Your task to perform on an android device: What's on my calendar tomorrow? Image 0: 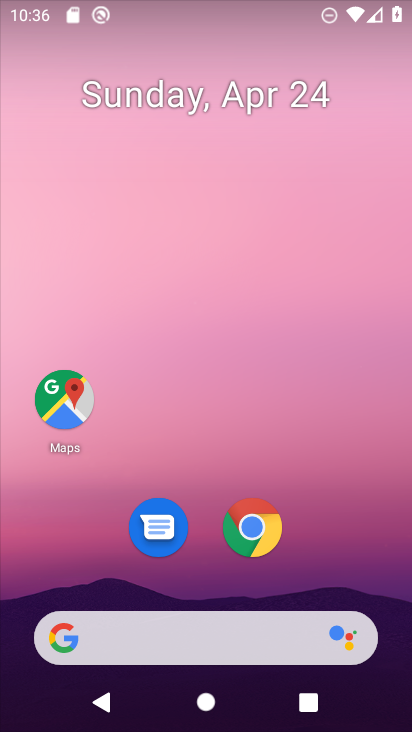
Step 0: click (394, 564)
Your task to perform on an android device: What's on my calendar tomorrow? Image 1: 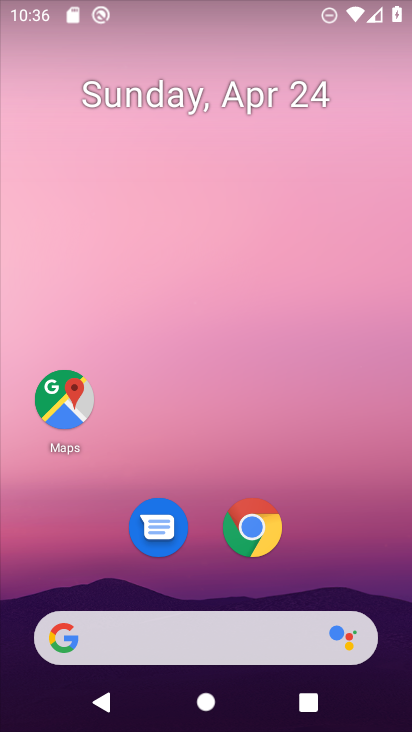
Step 1: drag from (400, 605) to (350, 113)
Your task to perform on an android device: What's on my calendar tomorrow? Image 2: 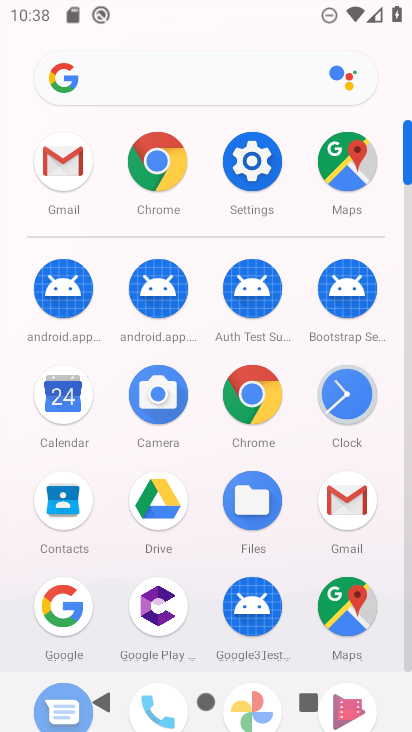
Step 2: click (61, 386)
Your task to perform on an android device: What's on my calendar tomorrow? Image 3: 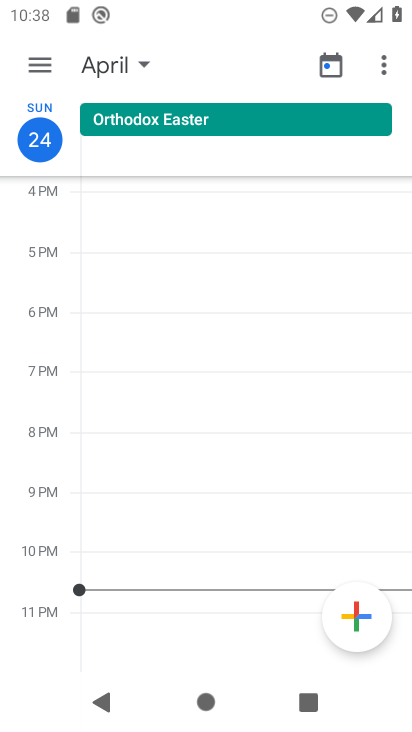
Step 3: click (83, 66)
Your task to perform on an android device: What's on my calendar tomorrow? Image 4: 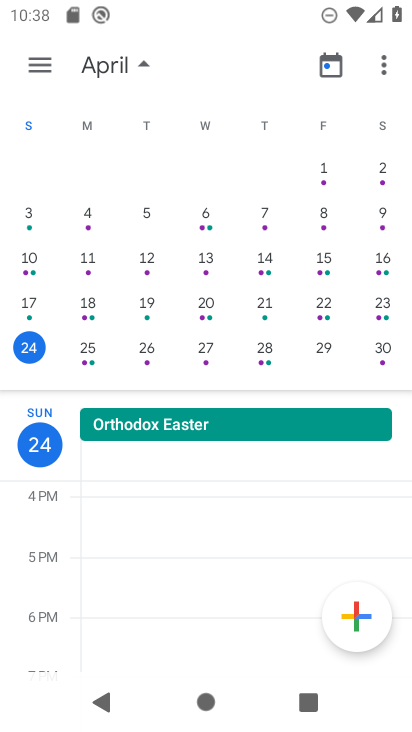
Step 4: click (42, 65)
Your task to perform on an android device: What's on my calendar tomorrow? Image 5: 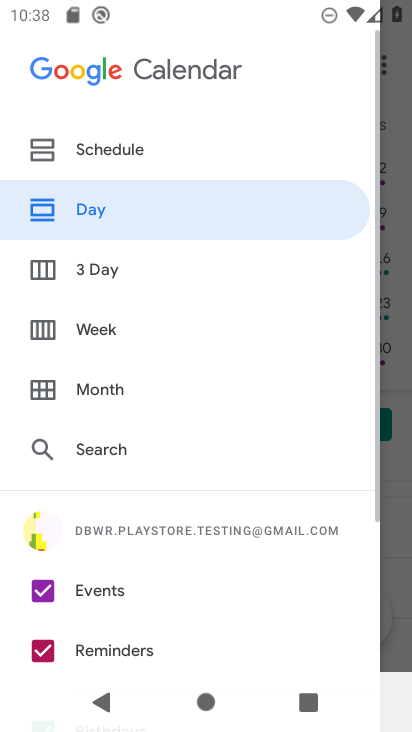
Step 5: click (100, 150)
Your task to perform on an android device: What's on my calendar tomorrow? Image 6: 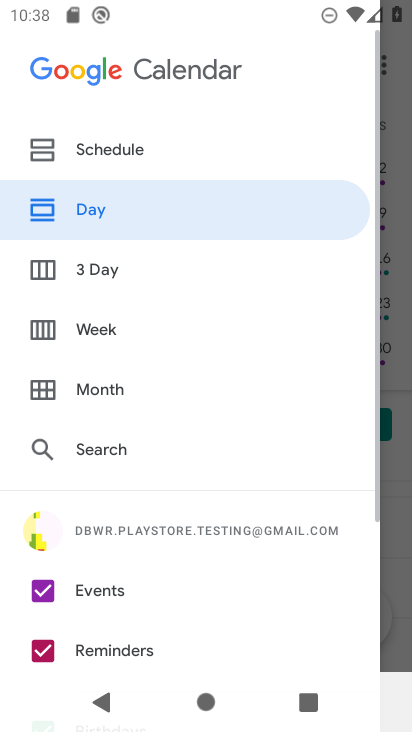
Step 6: click (129, 155)
Your task to perform on an android device: What's on my calendar tomorrow? Image 7: 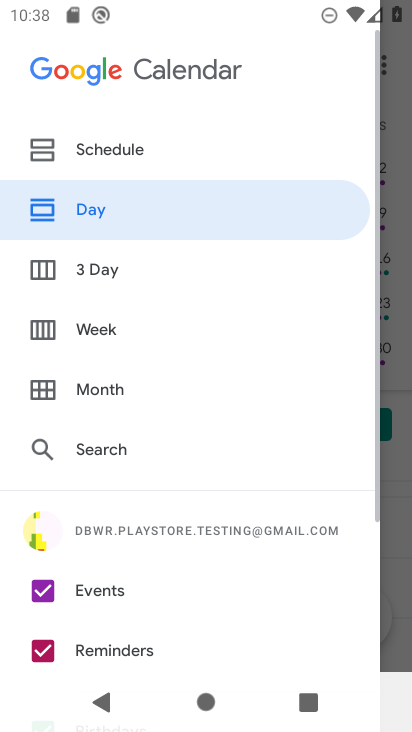
Step 7: click (129, 155)
Your task to perform on an android device: What's on my calendar tomorrow? Image 8: 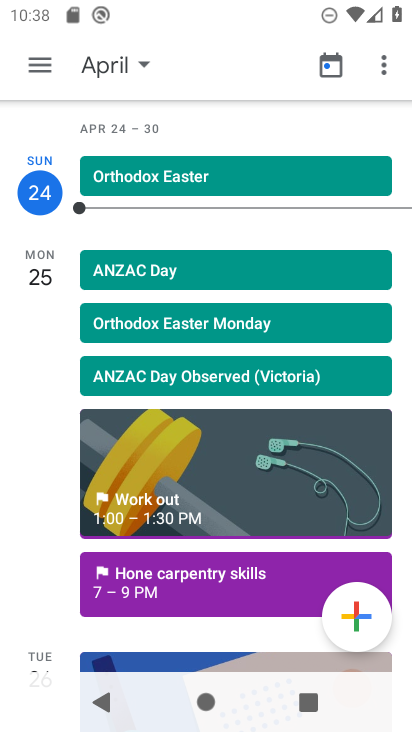
Step 8: drag from (39, 612) to (115, 312)
Your task to perform on an android device: What's on my calendar tomorrow? Image 9: 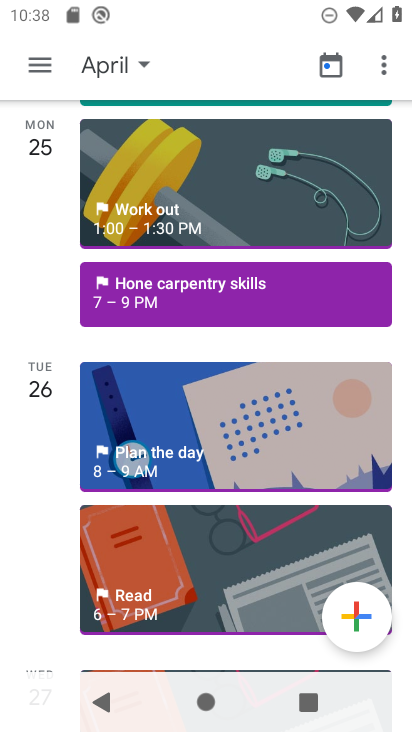
Step 9: click (144, 394)
Your task to perform on an android device: What's on my calendar tomorrow? Image 10: 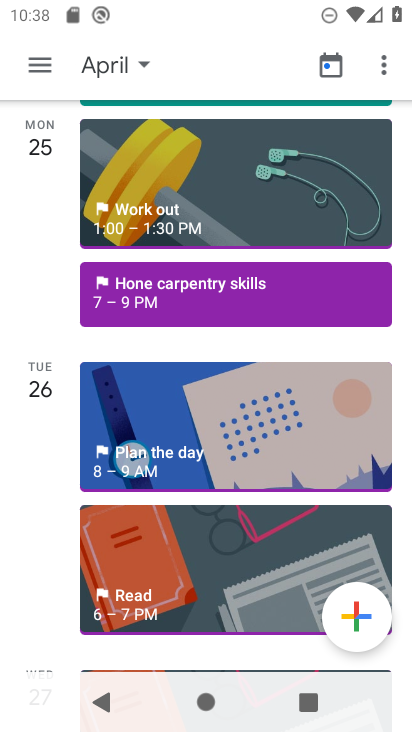
Step 10: click (236, 434)
Your task to perform on an android device: What's on my calendar tomorrow? Image 11: 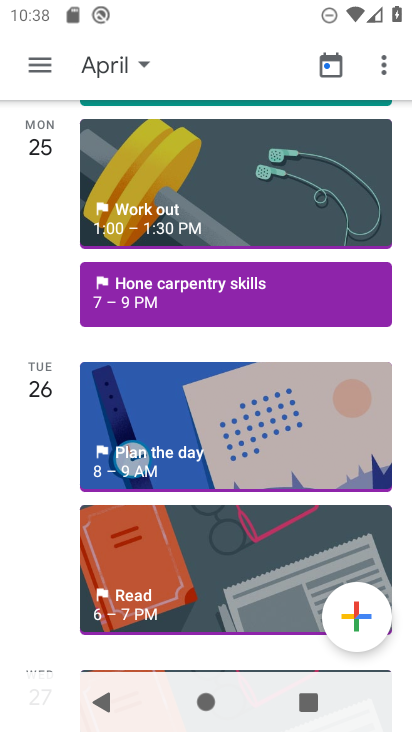
Step 11: click (236, 434)
Your task to perform on an android device: What's on my calendar tomorrow? Image 12: 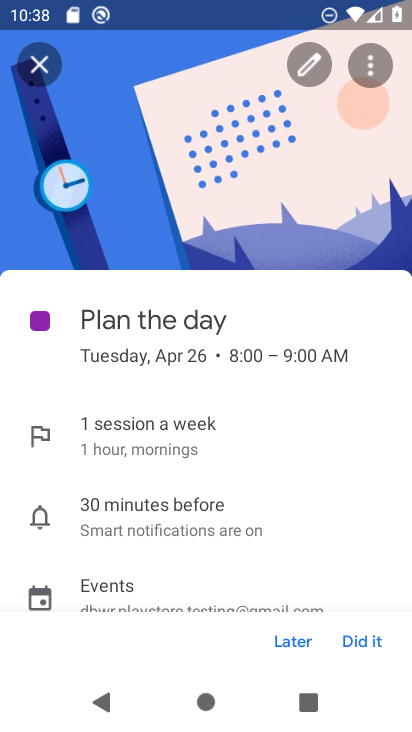
Step 12: task complete